Your task to perform on an android device: View the shopping cart on costco.com. Add "apple airpods pro" to the cart on costco.com Image 0: 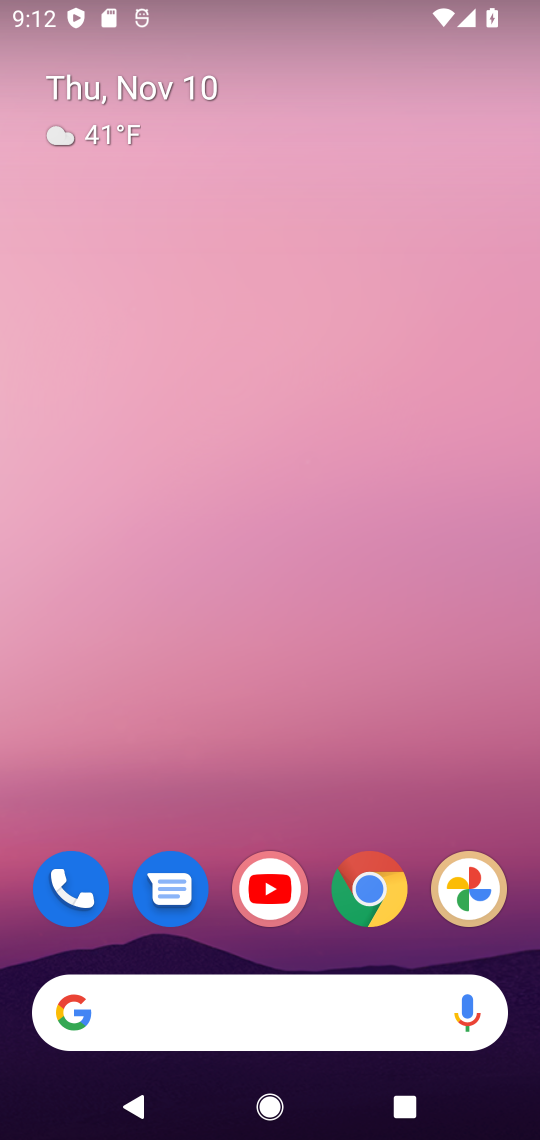
Step 0: click (371, 895)
Your task to perform on an android device: View the shopping cart on costco.com. Add "apple airpods pro" to the cart on costco.com Image 1: 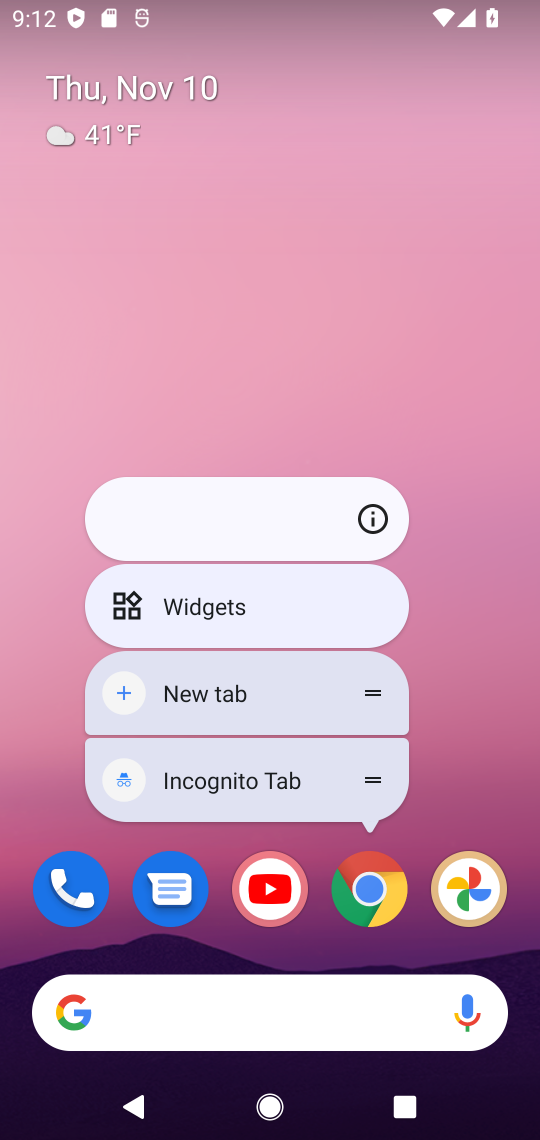
Step 1: click (371, 897)
Your task to perform on an android device: View the shopping cart on costco.com. Add "apple airpods pro" to the cart on costco.com Image 2: 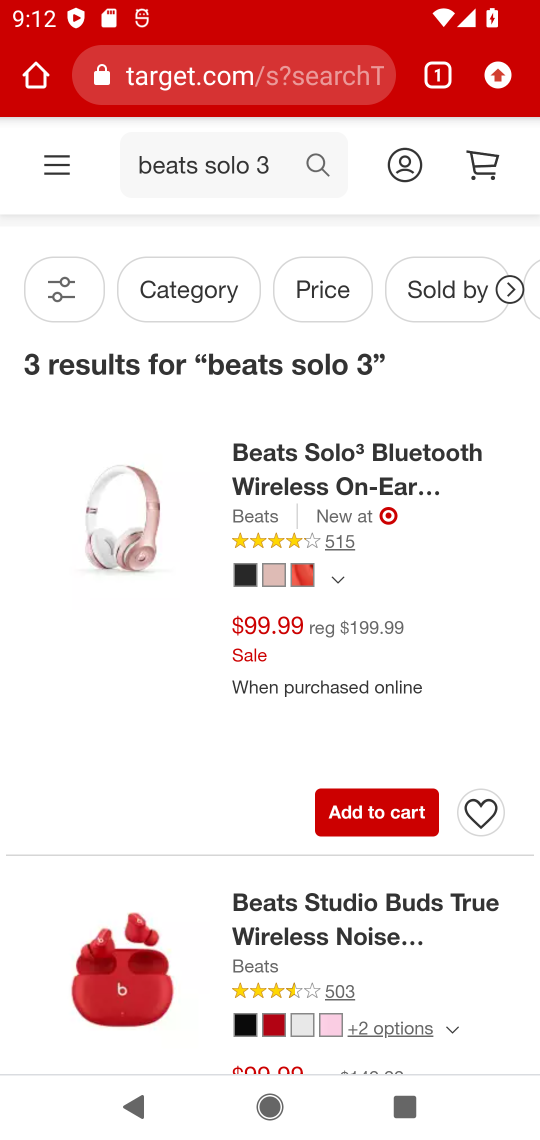
Step 2: click (288, 75)
Your task to perform on an android device: View the shopping cart on costco.com. Add "apple airpods pro" to the cart on costco.com Image 3: 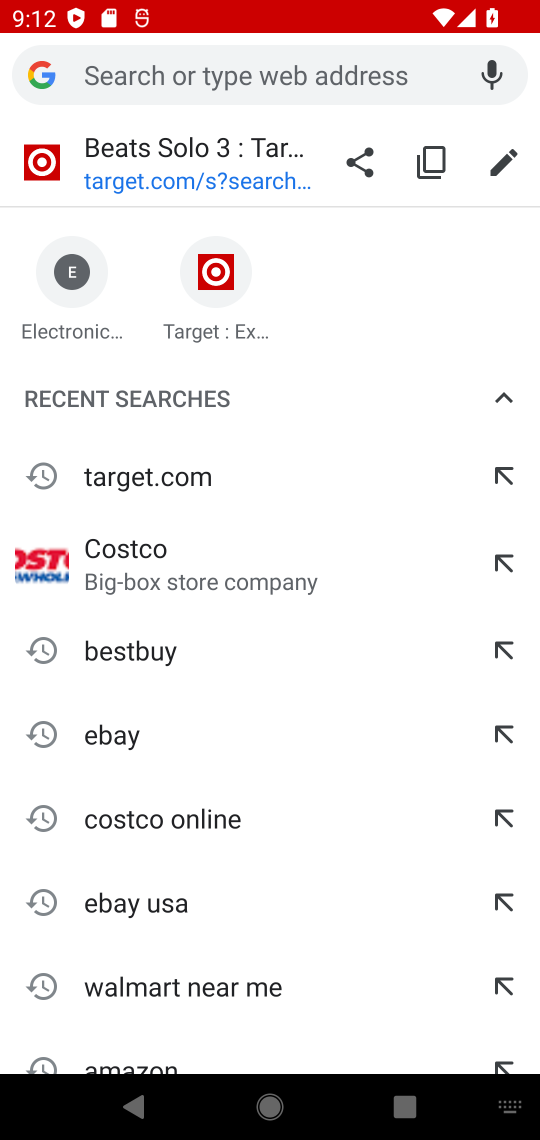
Step 3: click (124, 549)
Your task to perform on an android device: View the shopping cart on costco.com. Add "apple airpods pro" to the cart on costco.com Image 4: 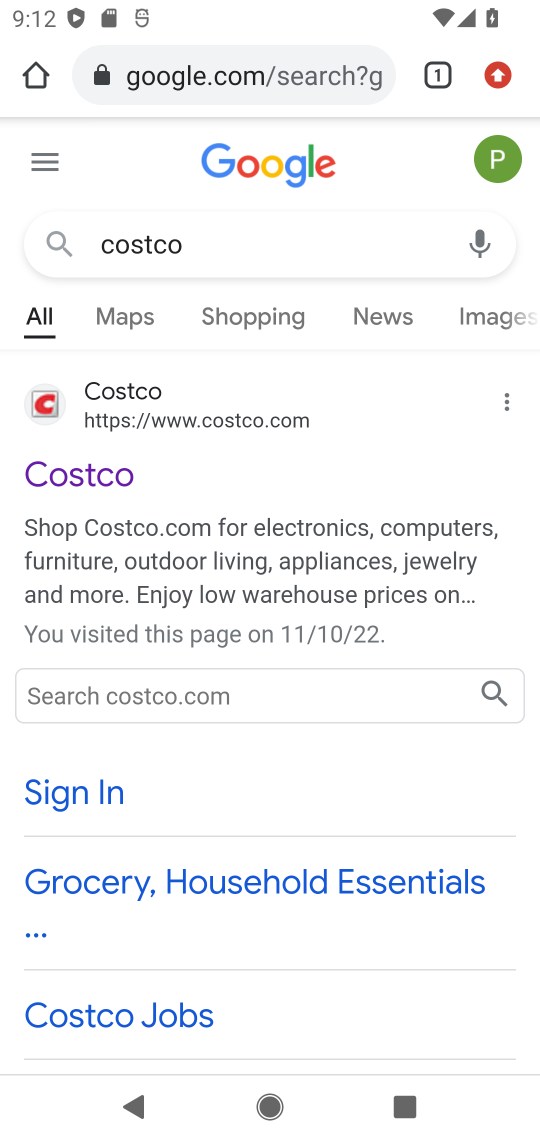
Step 4: click (91, 479)
Your task to perform on an android device: View the shopping cart on costco.com. Add "apple airpods pro" to the cart on costco.com Image 5: 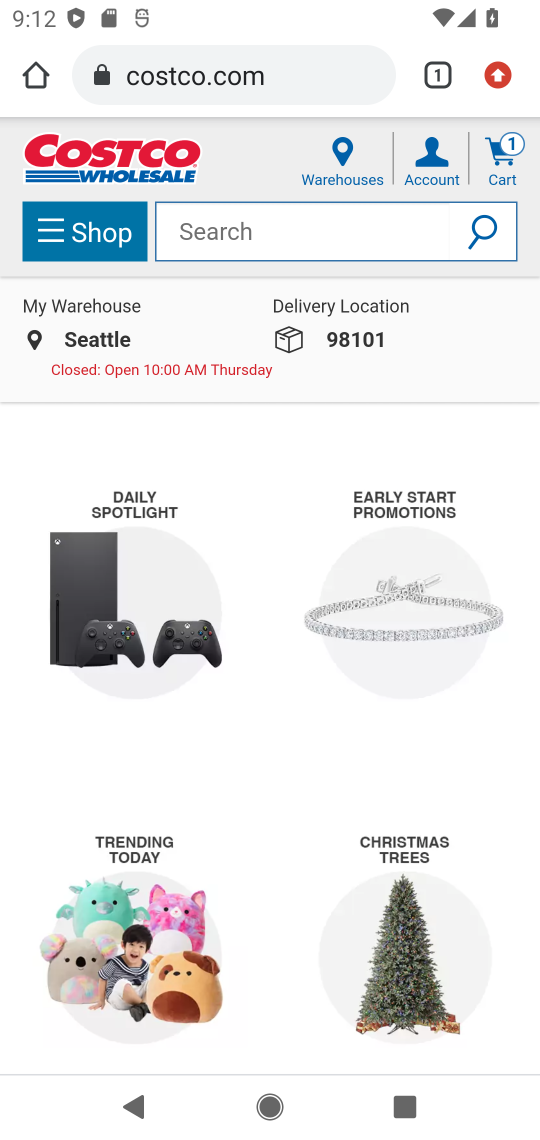
Step 5: click (326, 230)
Your task to perform on an android device: View the shopping cart on costco.com. Add "apple airpods pro" to the cart on costco.com Image 6: 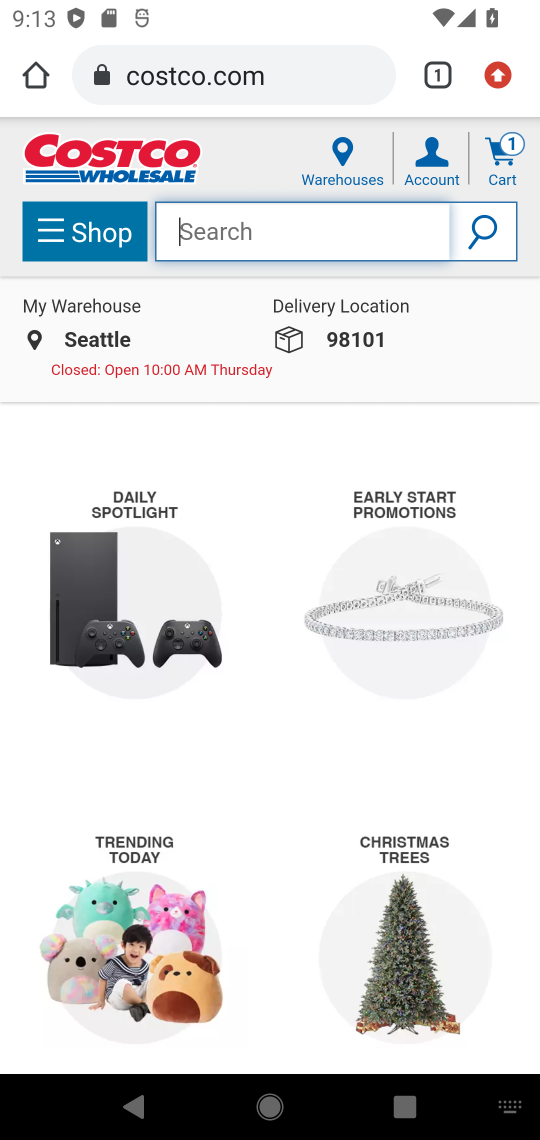
Step 6: type "apple airpods pro"
Your task to perform on an android device: View the shopping cart on costco.com. Add "apple airpods pro" to the cart on costco.com Image 7: 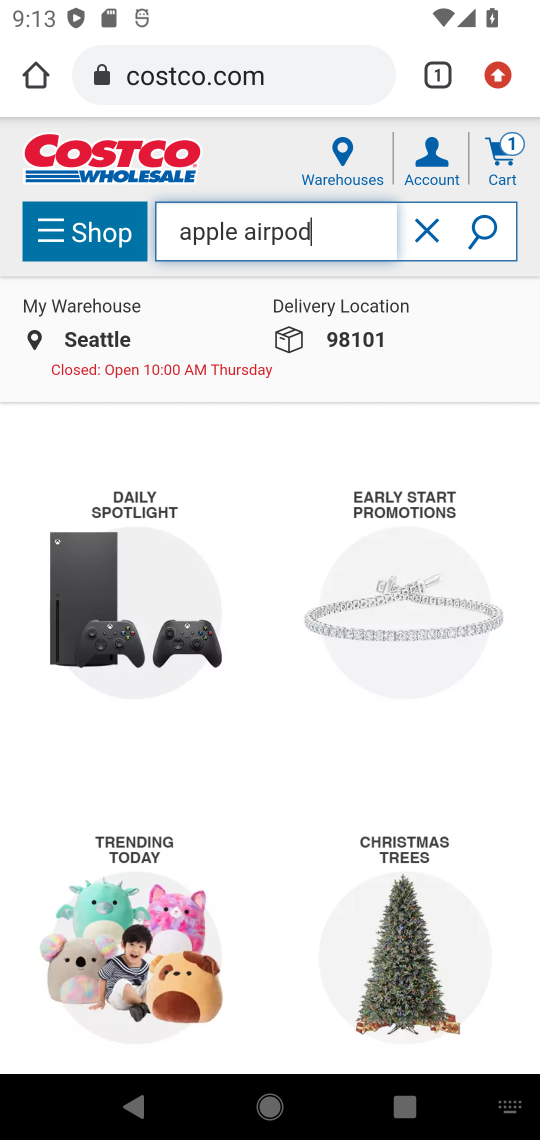
Step 7: press enter
Your task to perform on an android device: View the shopping cart on costco.com. Add "apple airpods pro" to the cart on costco.com Image 8: 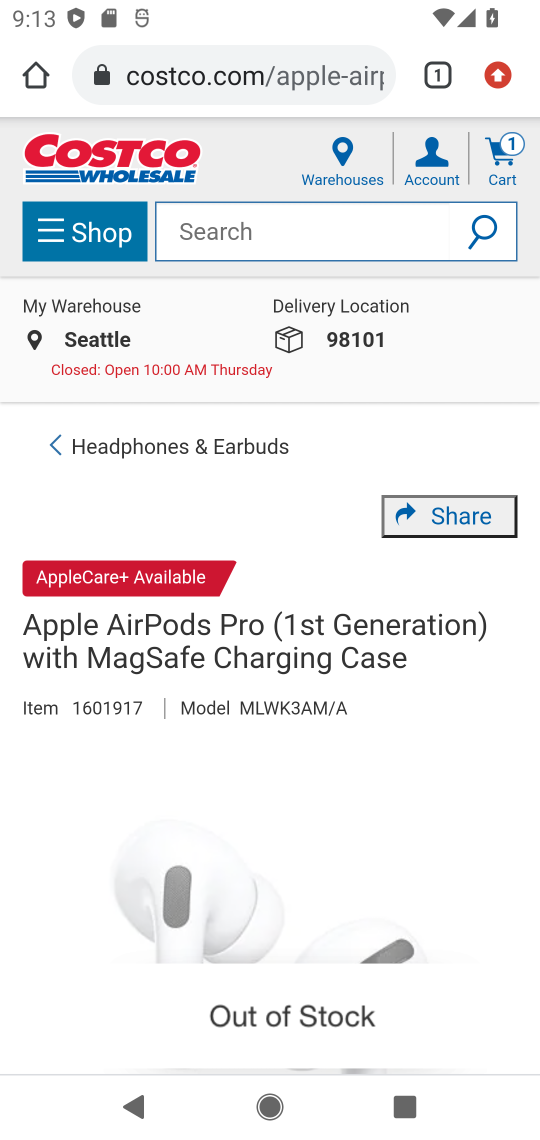
Step 8: task complete